Your task to perform on an android device: toggle notification dots Image 0: 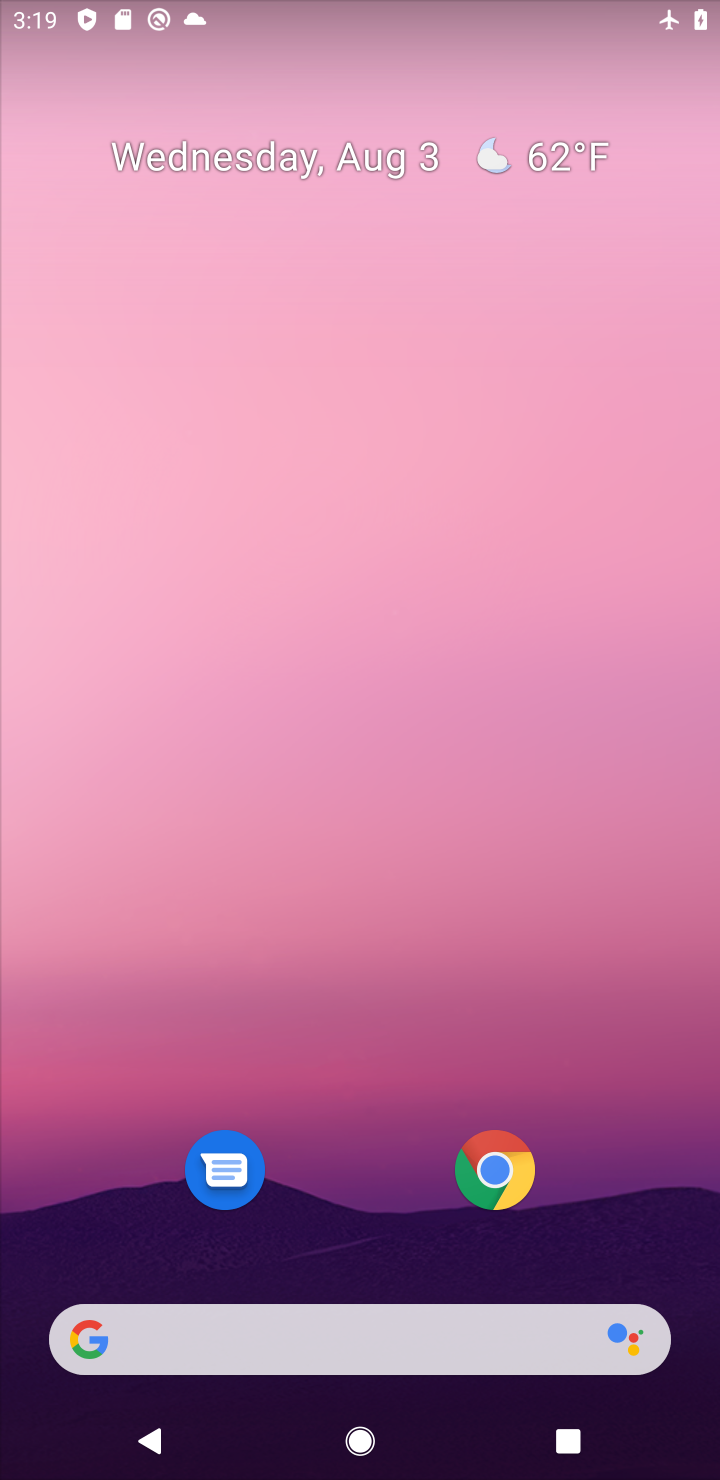
Step 0: drag from (353, 911) to (286, 325)
Your task to perform on an android device: toggle notification dots Image 1: 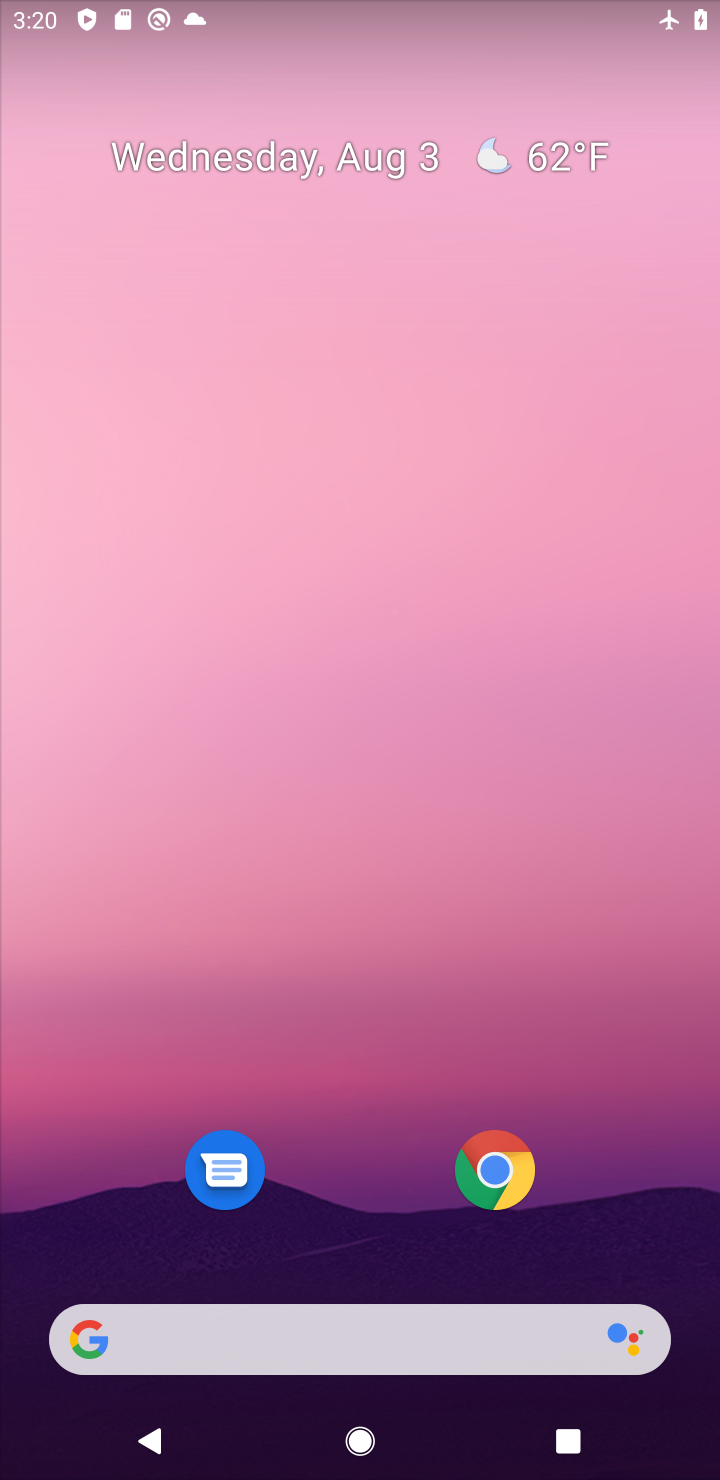
Step 1: drag from (360, 1185) to (642, 17)
Your task to perform on an android device: toggle notification dots Image 2: 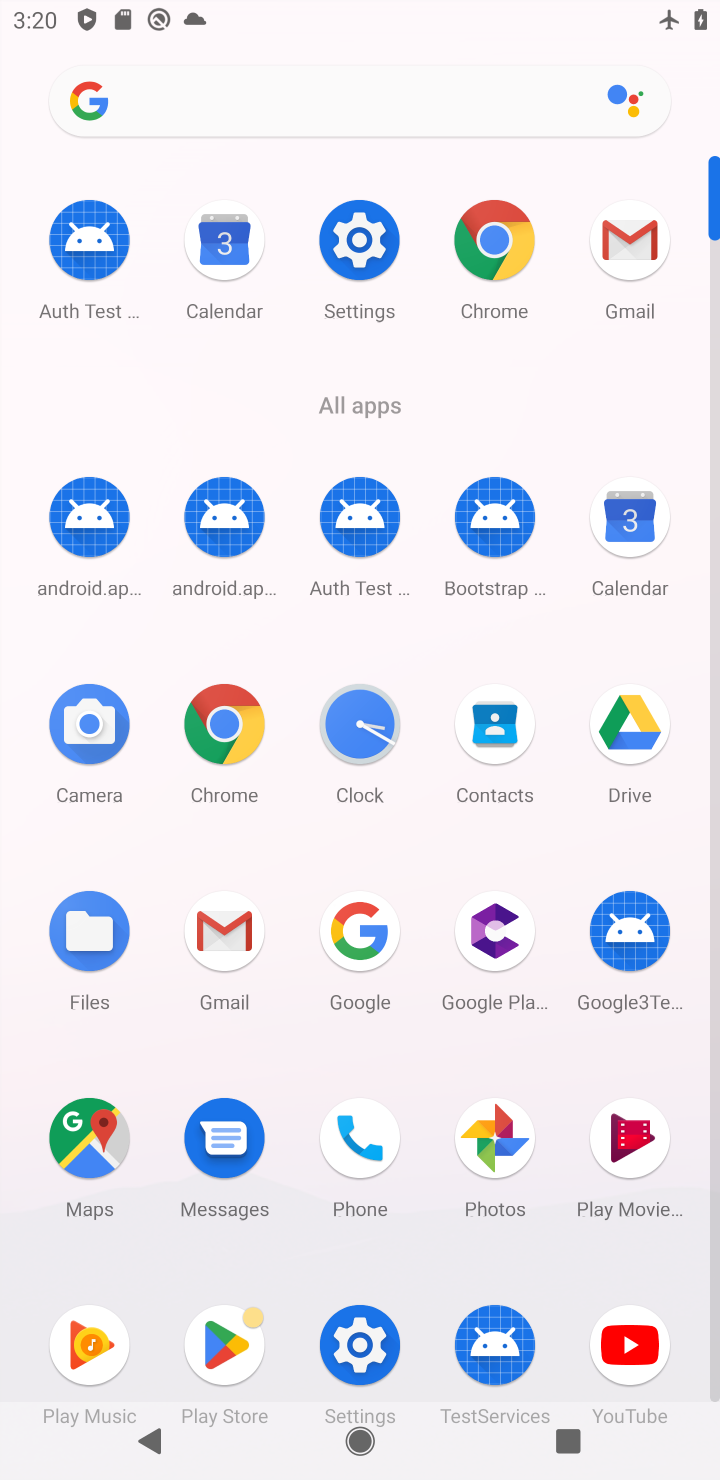
Step 2: click (353, 243)
Your task to perform on an android device: toggle notification dots Image 3: 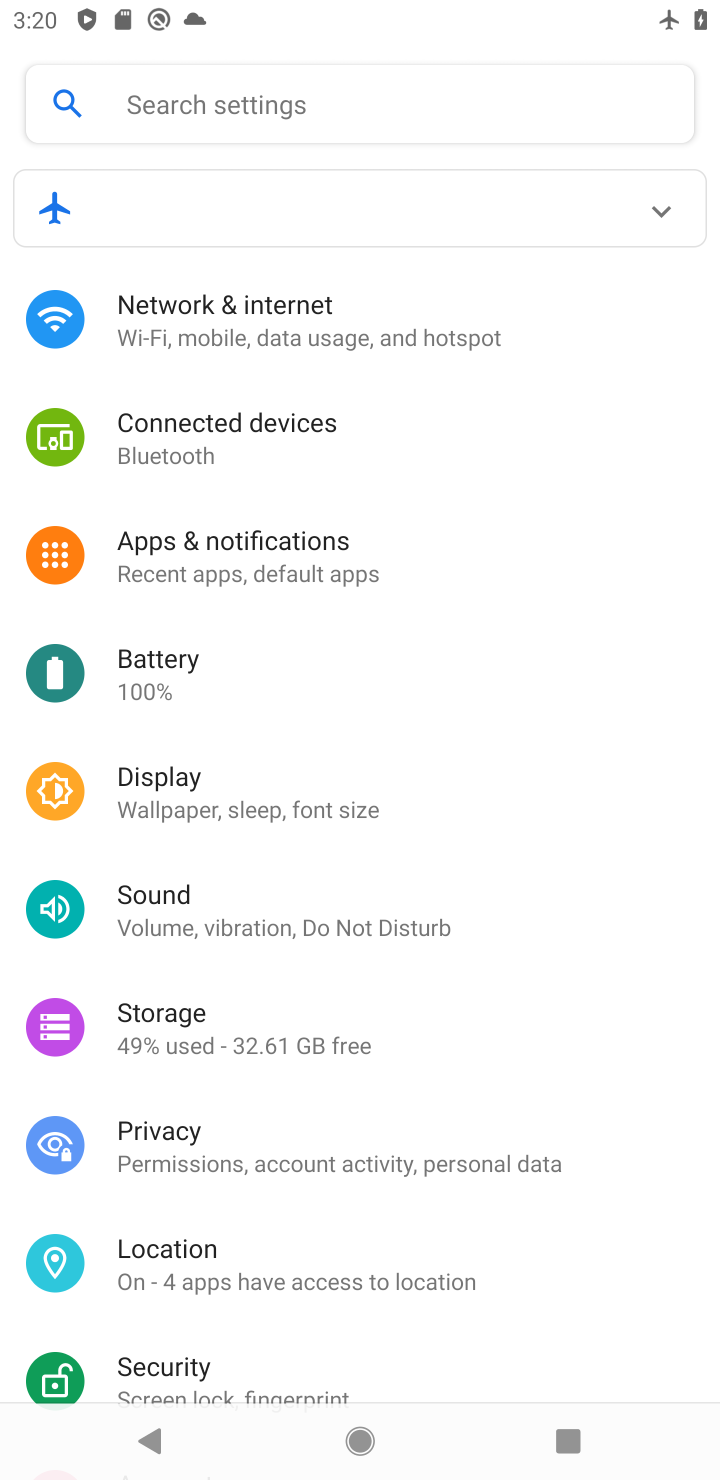
Step 3: drag from (257, 1154) to (330, 644)
Your task to perform on an android device: toggle notification dots Image 4: 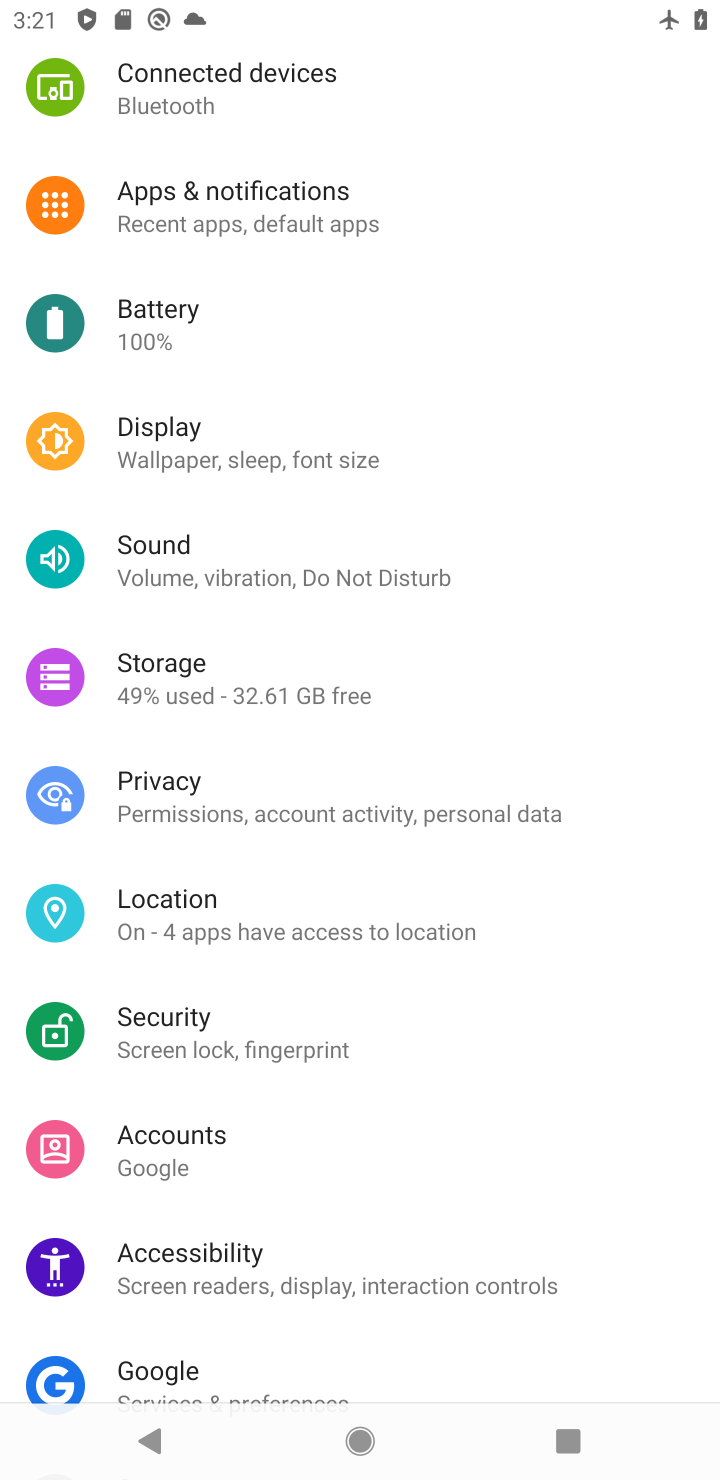
Step 4: click (234, 195)
Your task to perform on an android device: toggle notification dots Image 5: 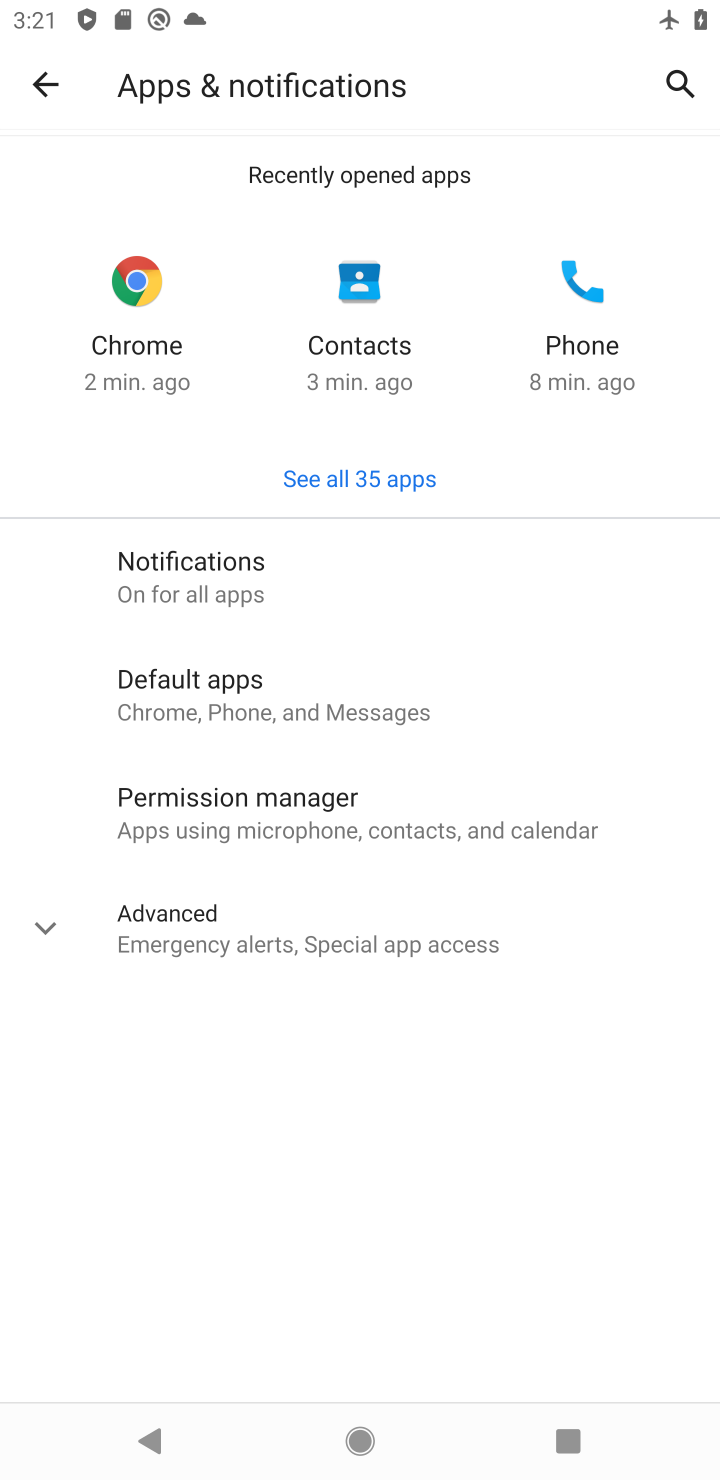
Step 5: click (203, 573)
Your task to perform on an android device: toggle notification dots Image 6: 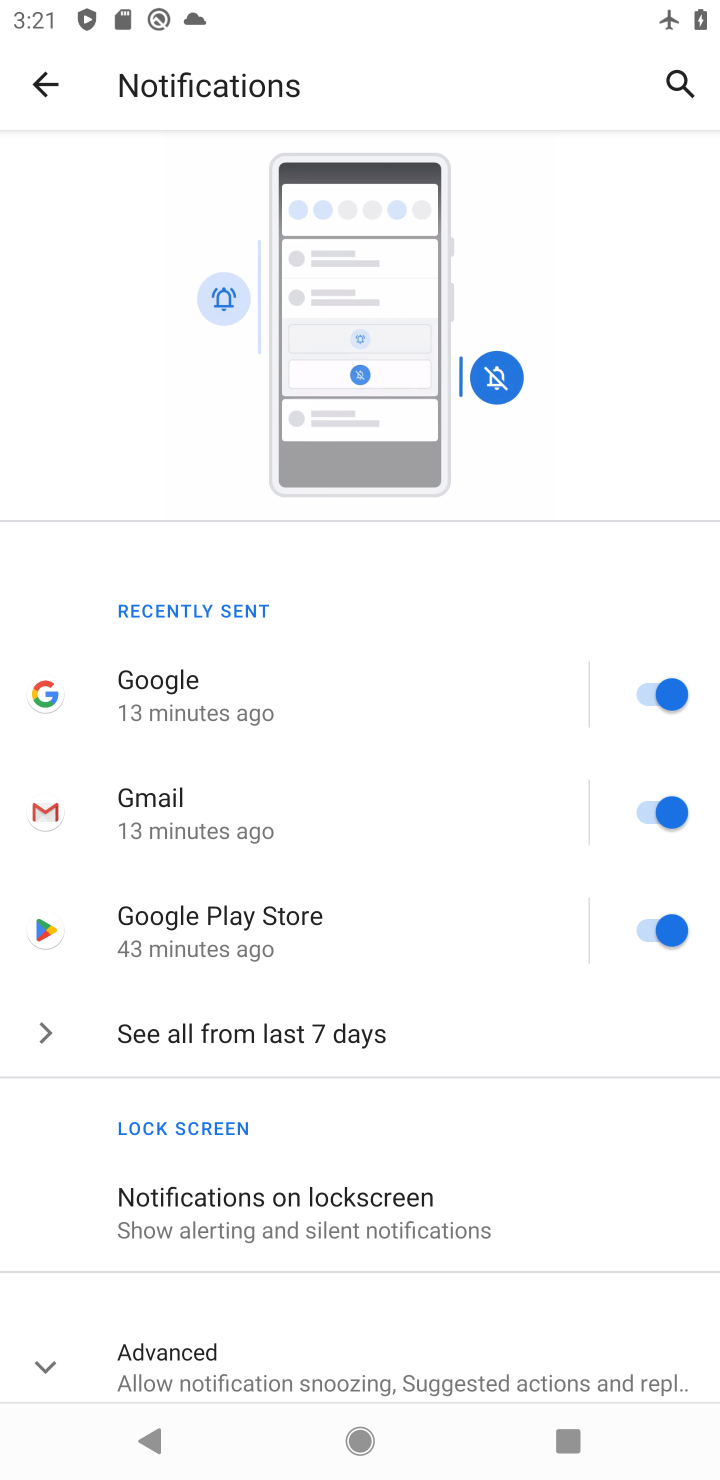
Step 6: click (326, 1220)
Your task to perform on an android device: toggle notification dots Image 7: 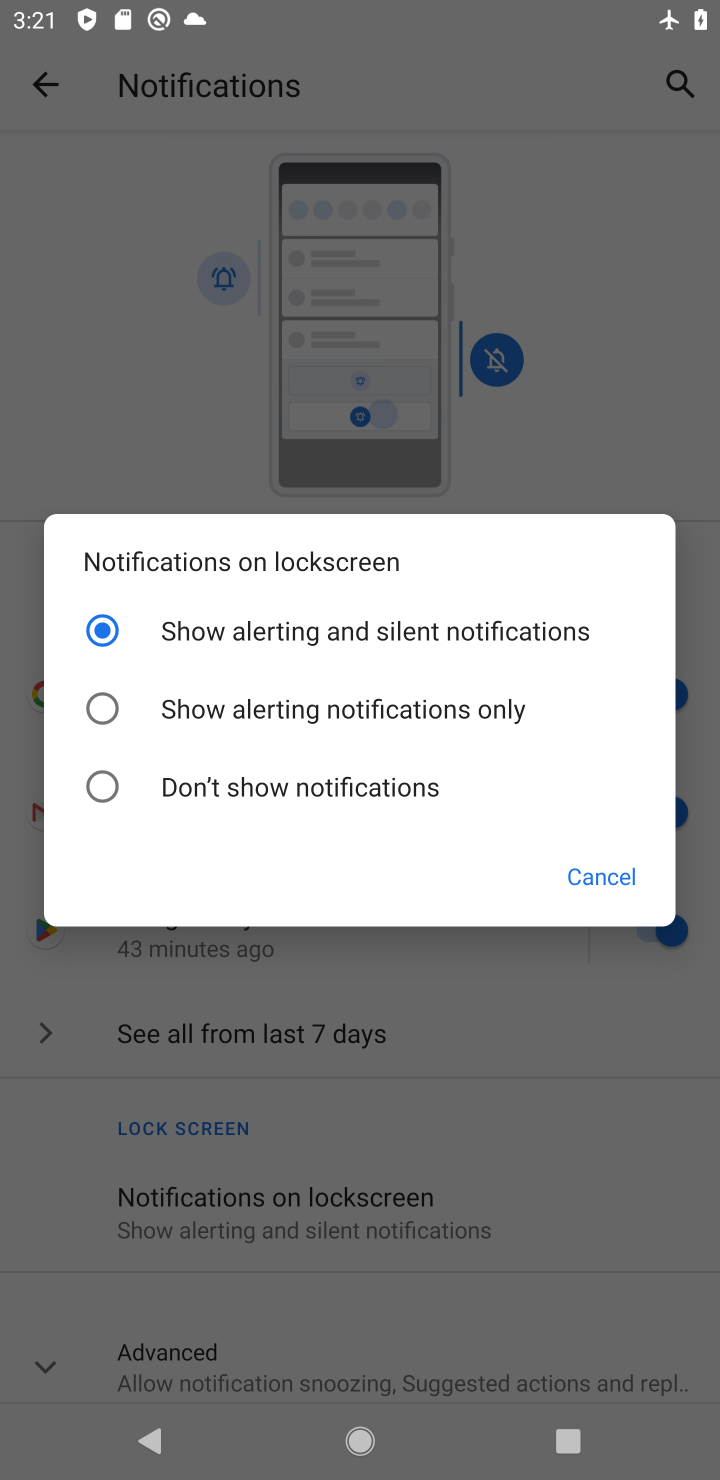
Step 7: click (103, 793)
Your task to perform on an android device: toggle notification dots Image 8: 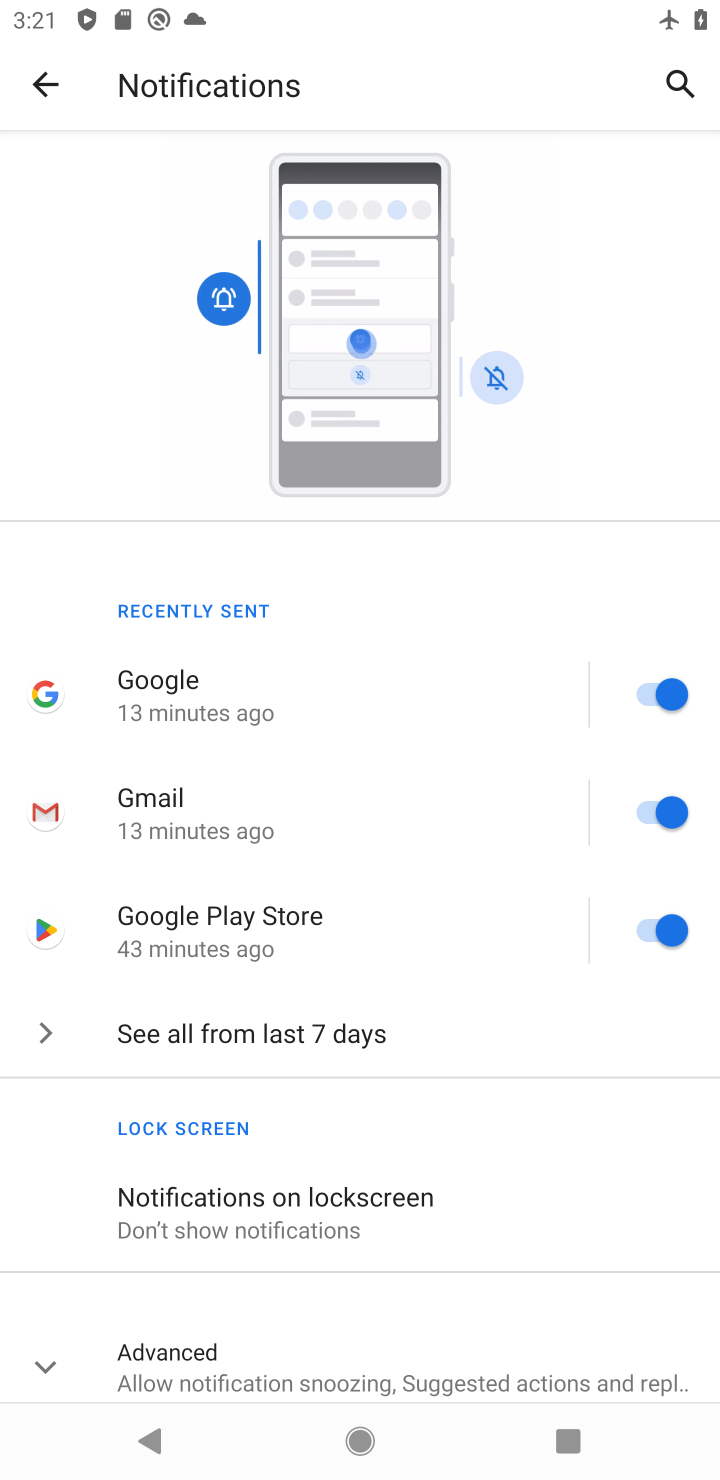
Step 8: task complete